Your task to perform on an android device: What is the recent news? Image 0: 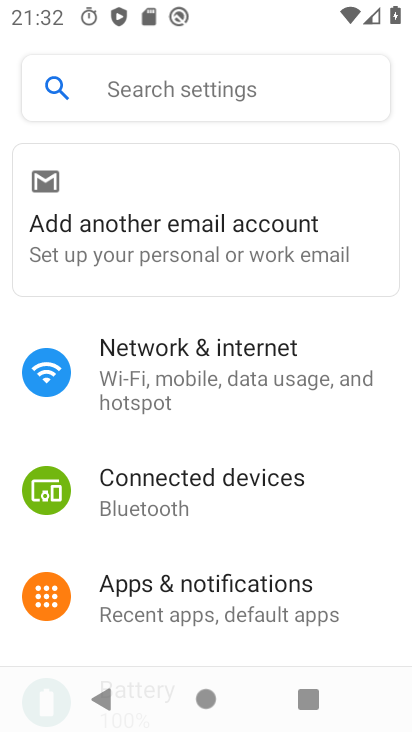
Step 0: press home button
Your task to perform on an android device: What is the recent news? Image 1: 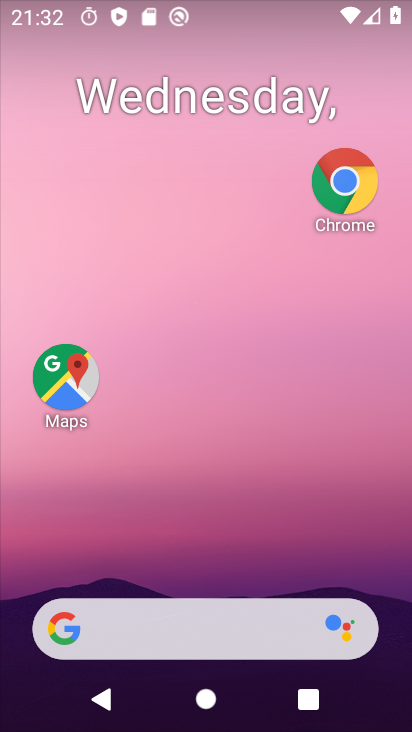
Step 1: drag from (225, 666) to (271, 158)
Your task to perform on an android device: What is the recent news? Image 2: 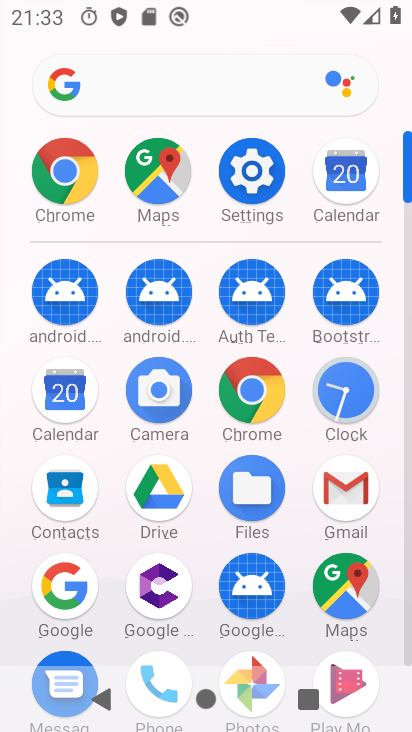
Step 2: click (155, 92)
Your task to perform on an android device: What is the recent news? Image 3: 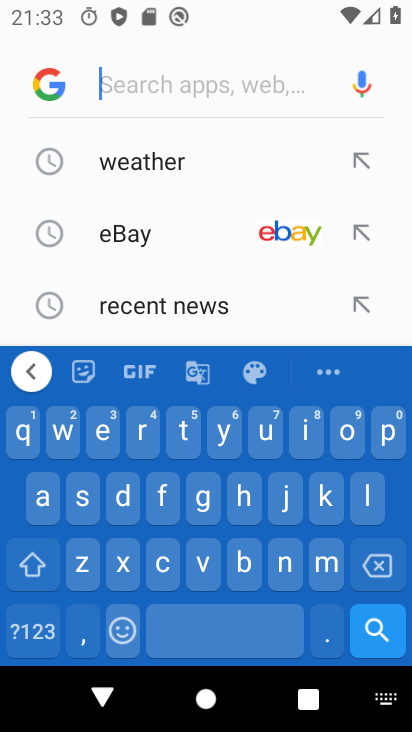
Step 3: click (121, 314)
Your task to perform on an android device: What is the recent news? Image 4: 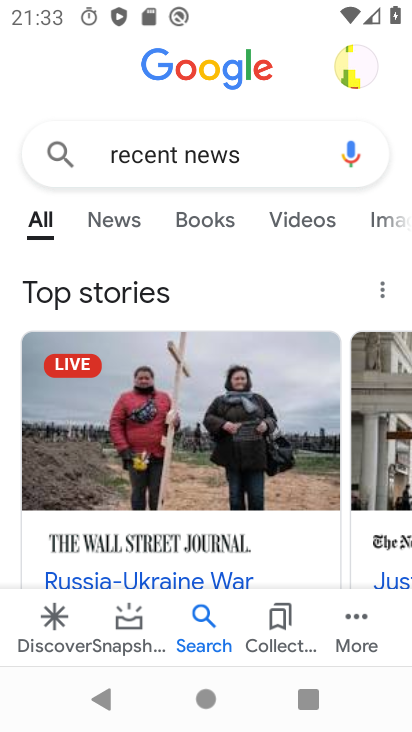
Step 4: task complete